Your task to perform on an android device: Search for Mexican restaurants on Maps Image 0: 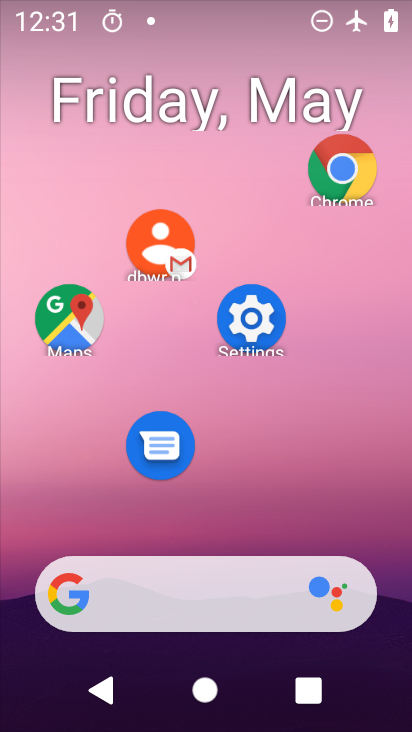
Step 0: drag from (223, 355) to (237, 210)
Your task to perform on an android device: Search for Mexican restaurants on Maps Image 1: 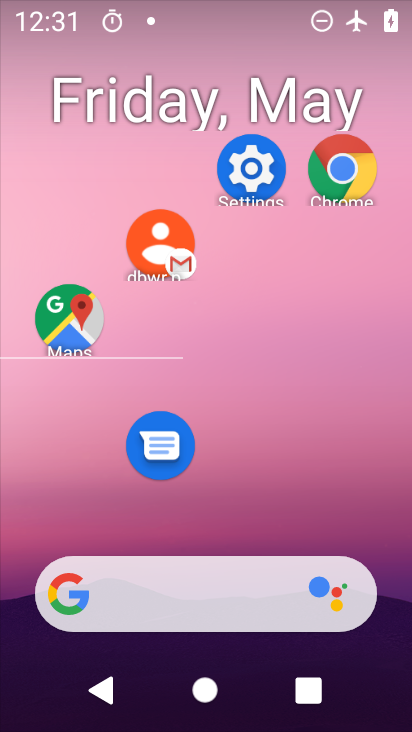
Step 1: click (252, 4)
Your task to perform on an android device: Search for Mexican restaurants on Maps Image 2: 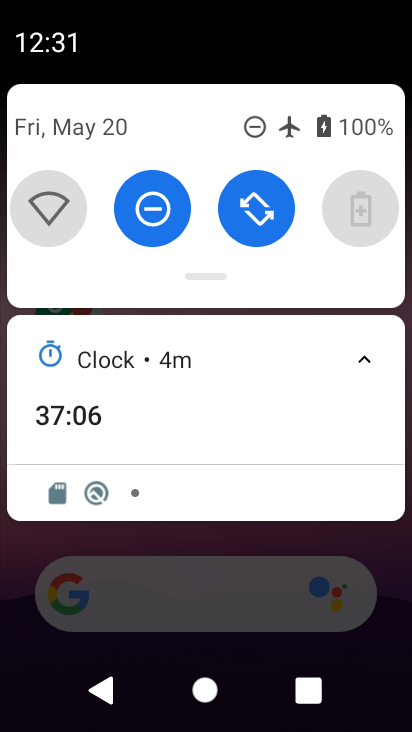
Step 2: drag from (228, 342) to (253, 179)
Your task to perform on an android device: Search for Mexican restaurants on Maps Image 3: 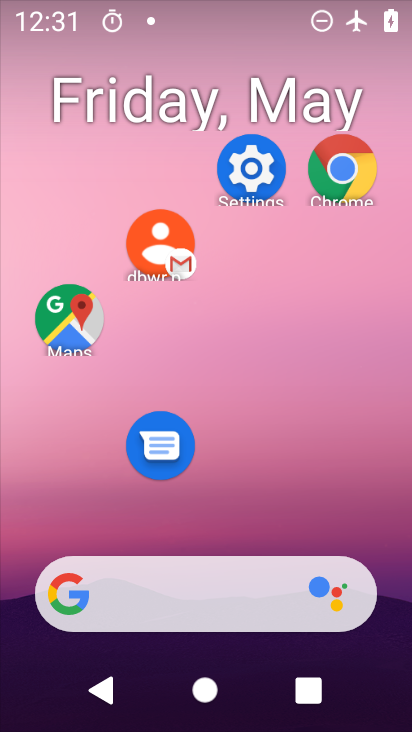
Step 3: drag from (244, 541) to (272, 100)
Your task to perform on an android device: Search for Mexican restaurants on Maps Image 4: 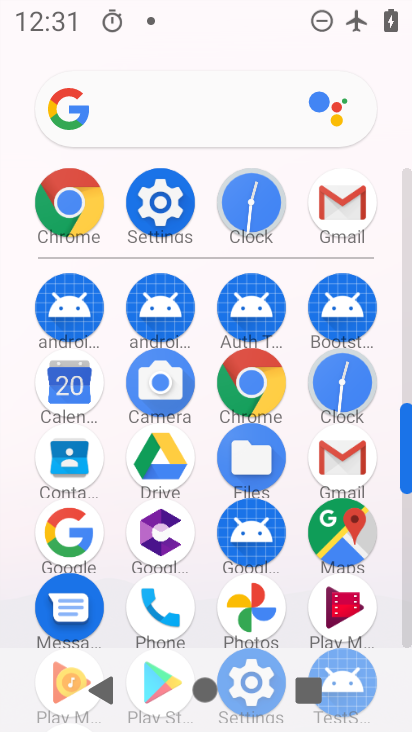
Step 4: click (341, 511)
Your task to perform on an android device: Search for Mexican restaurants on Maps Image 5: 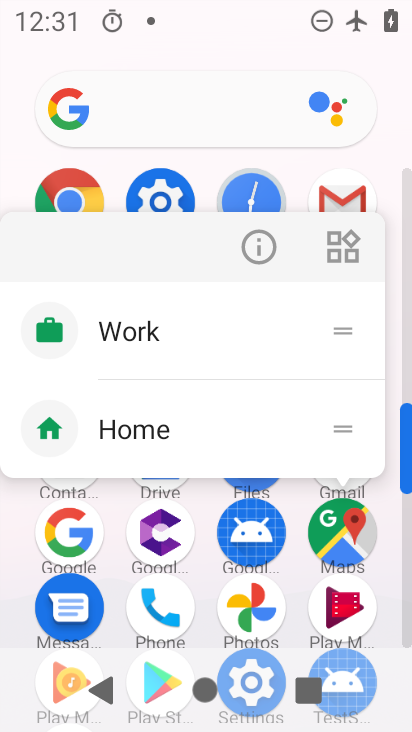
Step 5: click (247, 248)
Your task to perform on an android device: Search for Mexican restaurants on Maps Image 6: 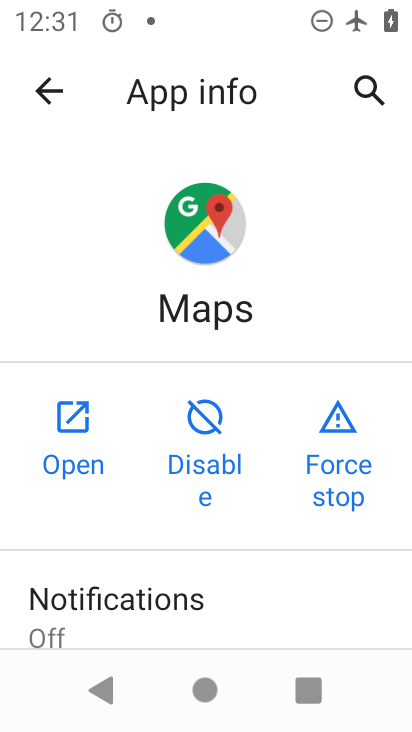
Step 6: click (68, 409)
Your task to perform on an android device: Search for Mexican restaurants on Maps Image 7: 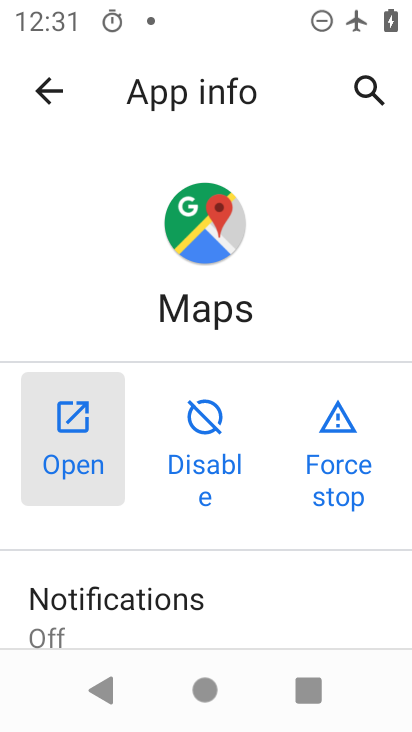
Step 7: click (66, 408)
Your task to perform on an android device: Search for Mexican restaurants on Maps Image 8: 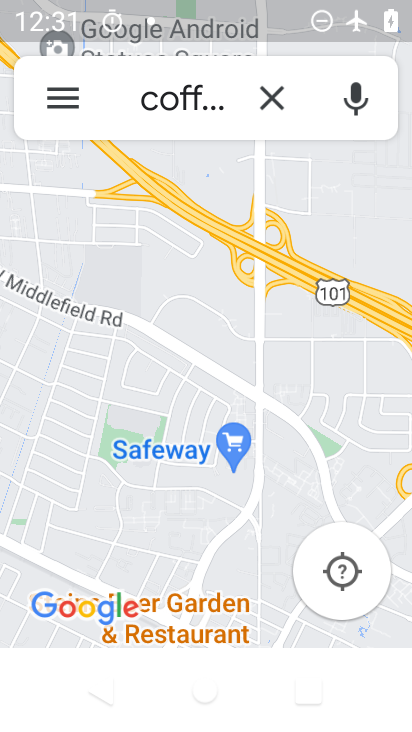
Step 8: click (277, 105)
Your task to perform on an android device: Search for Mexican restaurants on Maps Image 9: 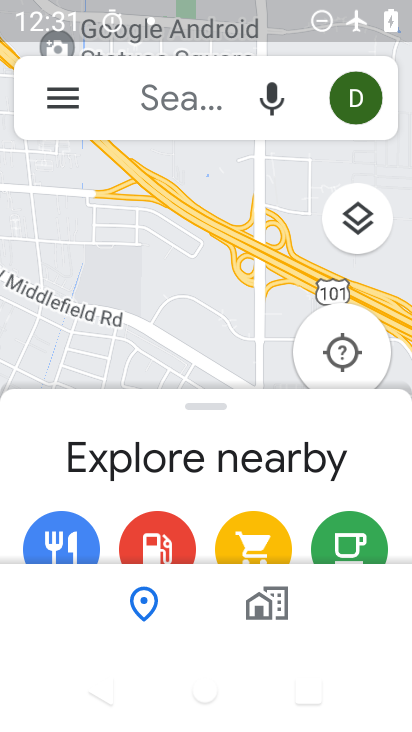
Step 9: click (125, 124)
Your task to perform on an android device: Search for Mexican restaurants on Maps Image 10: 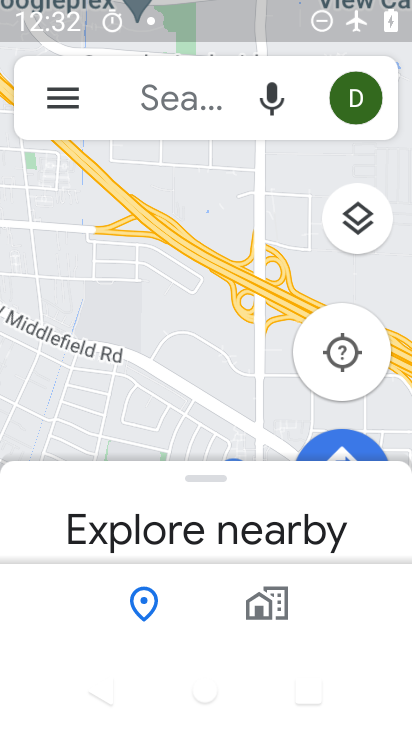
Step 10: click (88, 89)
Your task to perform on an android device: Search for Mexican restaurants on Maps Image 11: 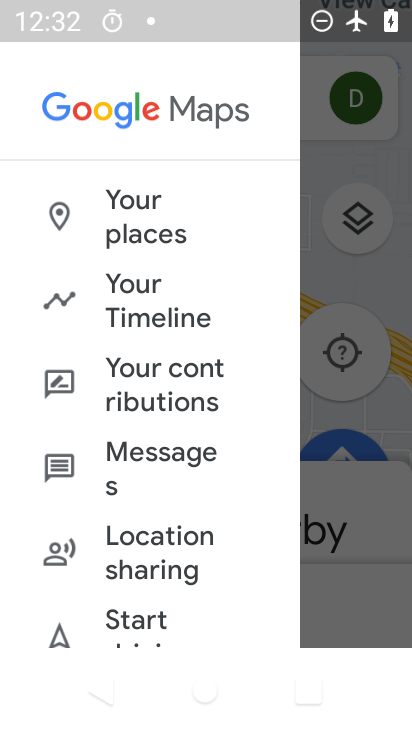
Step 11: drag from (146, 524) to (335, 5)
Your task to perform on an android device: Search for Mexican restaurants on Maps Image 12: 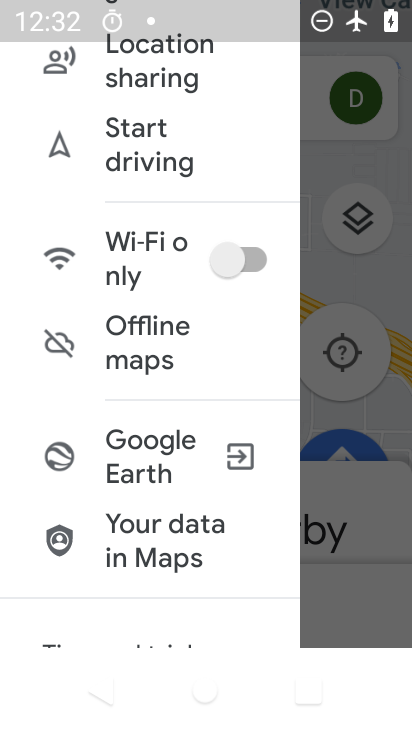
Step 12: drag from (159, 536) to (166, 60)
Your task to perform on an android device: Search for Mexican restaurants on Maps Image 13: 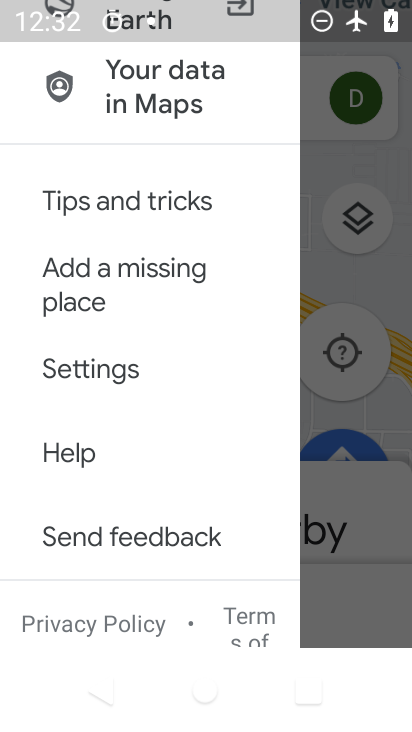
Step 13: press back button
Your task to perform on an android device: Search for Mexican restaurants on Maps Image 14: 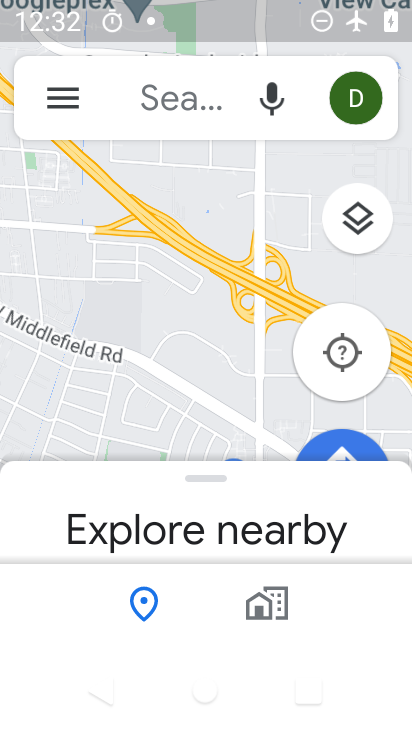
Step 14: click (132, 124)
Your task to perform on an android device: Search for Mexican restaurants on Maps Image 15: 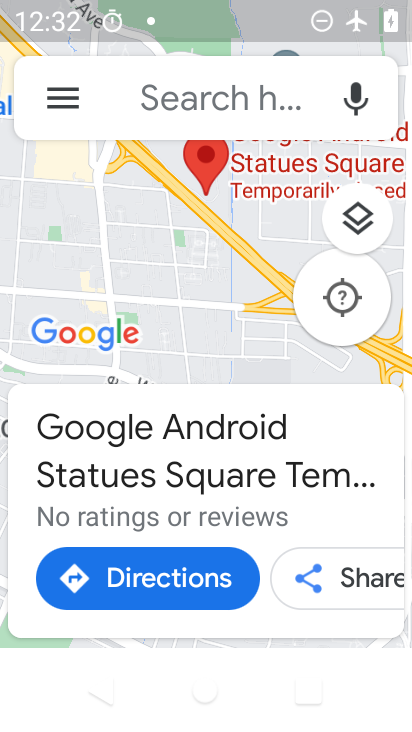
Step 15: click (182, 96)
Your task to perform on an android device: Search for Mexican restaurants on Maps Image 16: 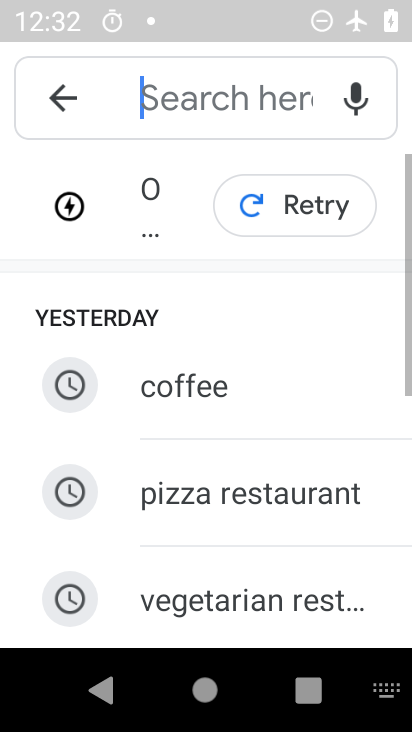
Step 16: drag from (218, 509) to (283, 90)
Your task to perform on an android device: Search for Mexican restaurants on Maps Image 17: 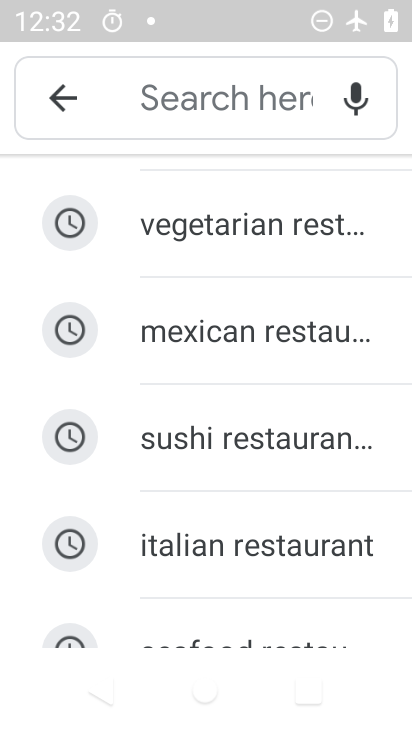
Step 17: click (156, 334)
Your task to perform on an android device: Search for Mexican restaurants on Maps Image 18: 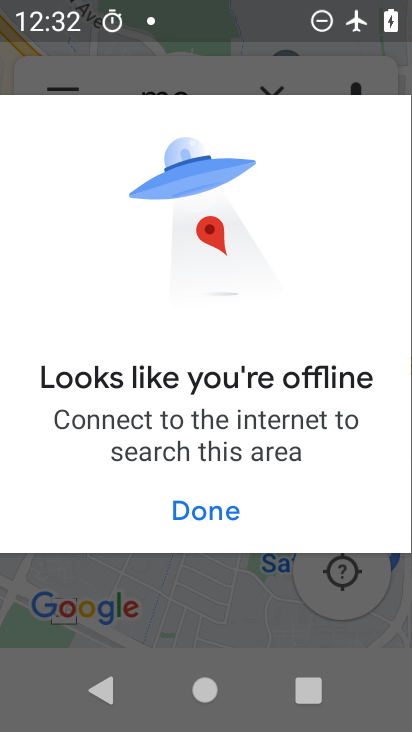
Step 18: click (192, 505)
Your task to perform on an android device: Search for Mexican restaurants on Maps Image 19: 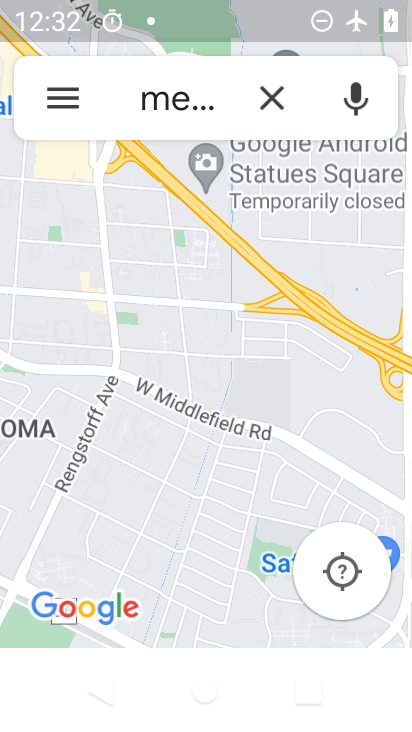
Step 19: task complete